Your task to perform on an android device: What's the weather going to be this weekend? Image 0: 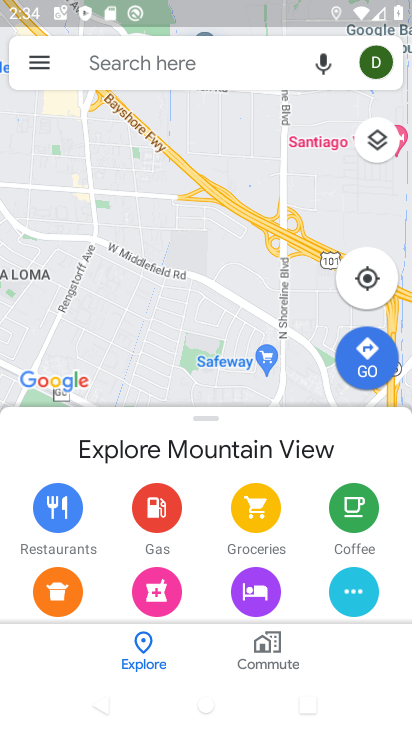
Step 0: task complete